Your task to perform on an android device: check the backup settings in the google photos Image 0: 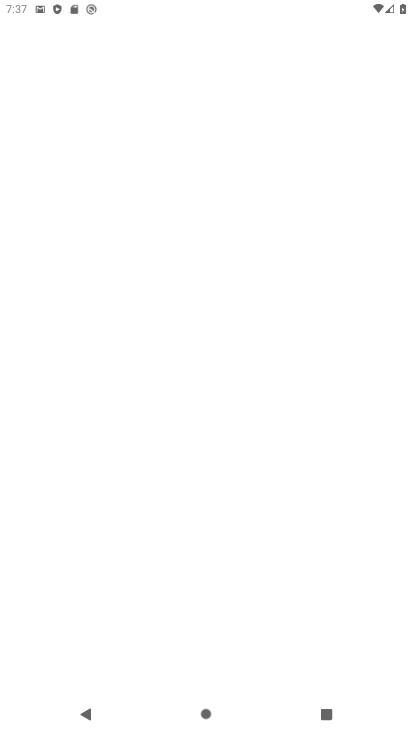
Step 0: press home button
Your task to perform on an android device: check the backup settings in the google photos Image 1: 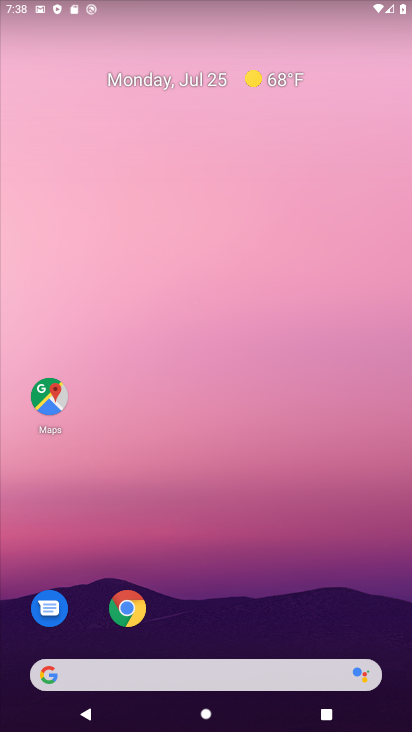
Step 1: drag from (257, 622) to (222, 3)
Your task to perform on an android device: check the backup settings in the google photos Image 2: 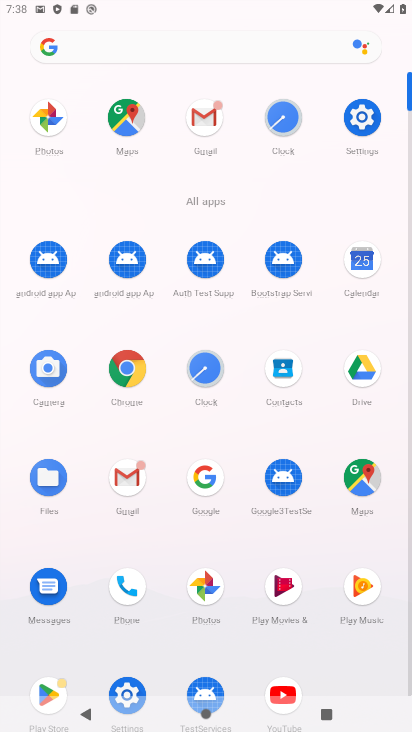
Step 2: click (44, 137)
Your task to perform on an android device: check the backup settings in the google photos Image 3: 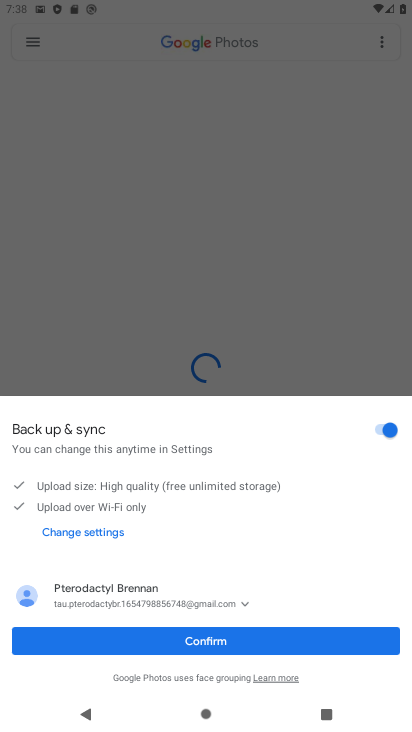
Step 3: click (184, 638)
Your task to perform on an android device: check the backup settings in the google photos Image 4: 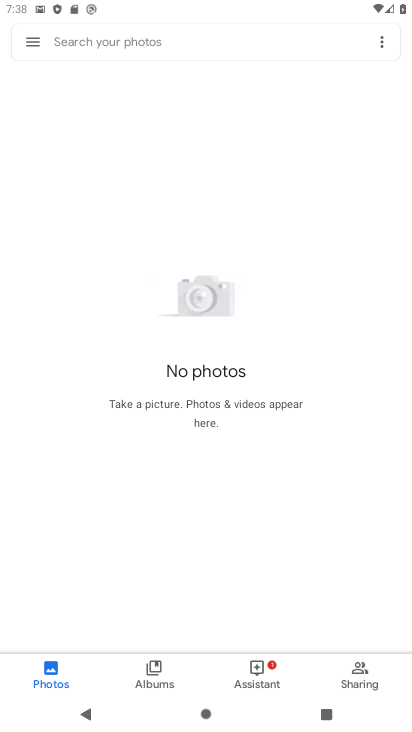
Step 4: click (20, 33)
Your task to perform on an android device: check the backup settings in the google photos Image 5: 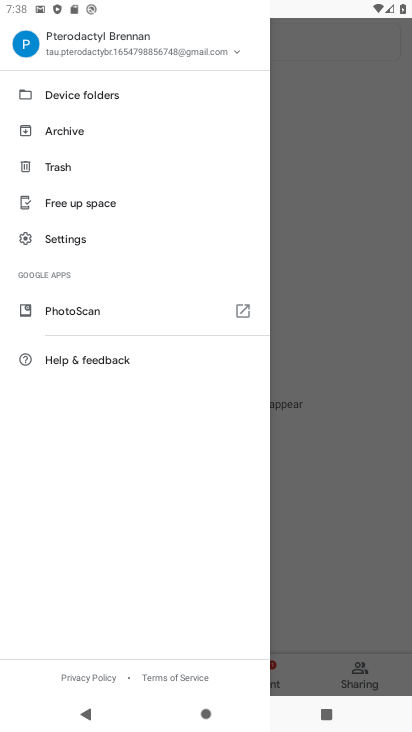
Step 5: click (51, 244)
Your task to perform on an android device: check the backup settings in the google photos Image 6: 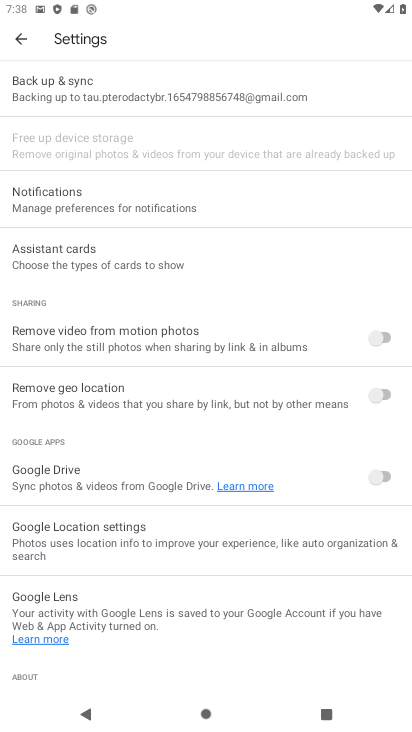
Step 6: click (97, 109)
Your task to perform on an android device: check the backup settings in the google photos Image 7: 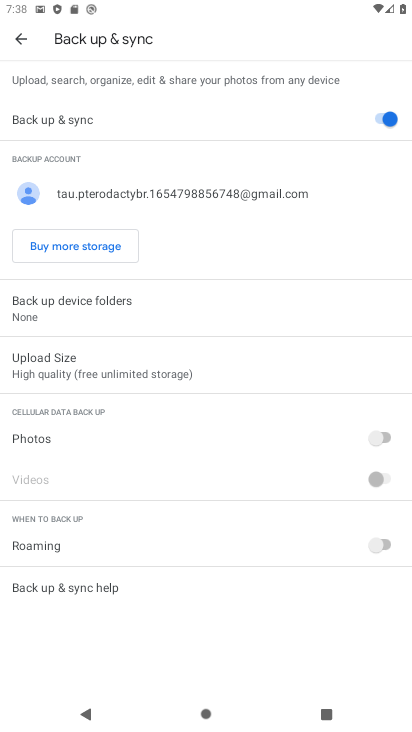
Step 7: task complete